Your task to perform on an android device: Open Google Maps and go to "Timeline" Image 0: 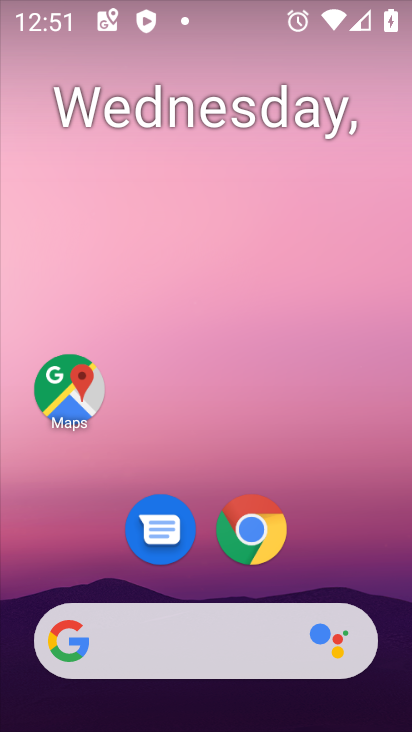
Step 0: click (68, 388)
Your task to perform on an android device: Open Google Maps and go to "Timeline" Image 1: 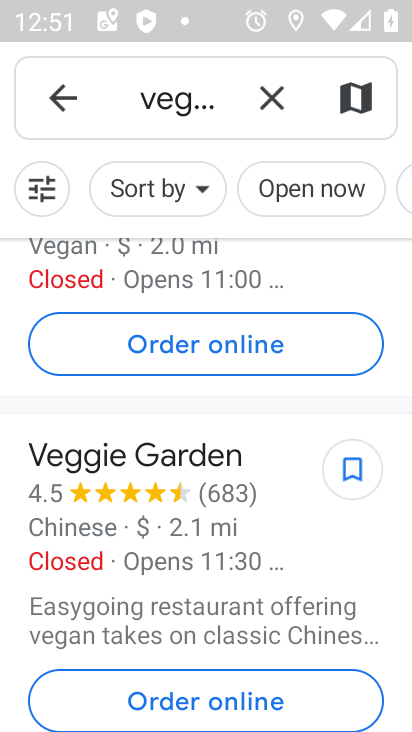
Step 1: click (276, 95)
Your task to perform on an android device: Open Google Maps and go to "Timeline" Image 2: 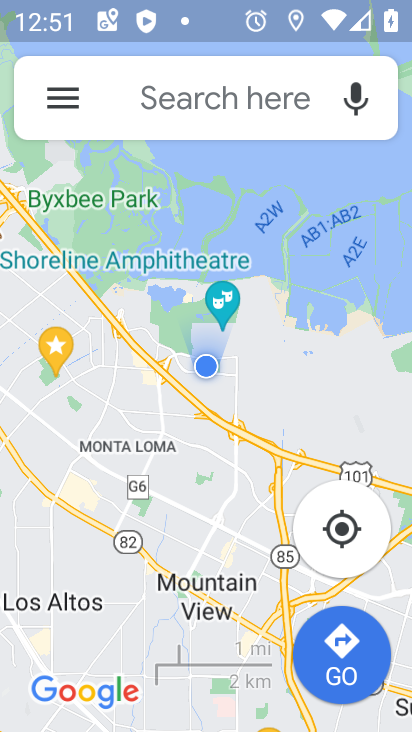
Step 2: click (59, 95)
Your task to perform on an android device: Open Google Maps and go to "Timeline" Image 3: 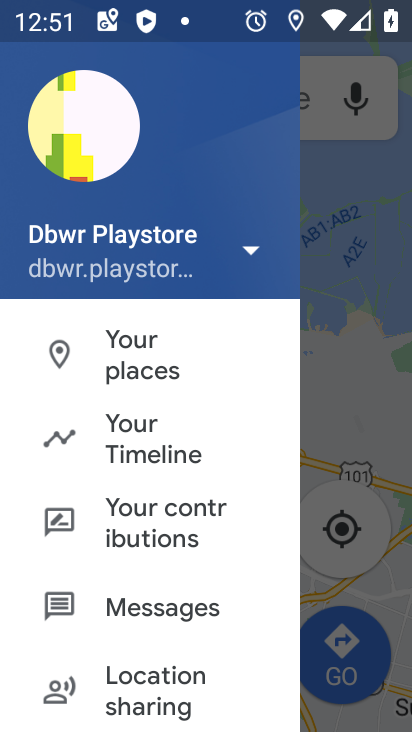
Step 3: click (142, 438)
Your task to perform on an android device: Open Google Maps and go to "Timeline" Image 4: 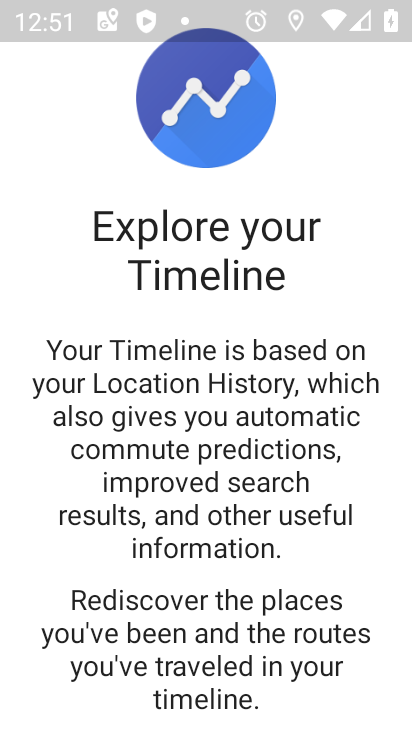
Step 4: task complete